Your task to perform on an android device: check the backup settings in the google photos Image 0: 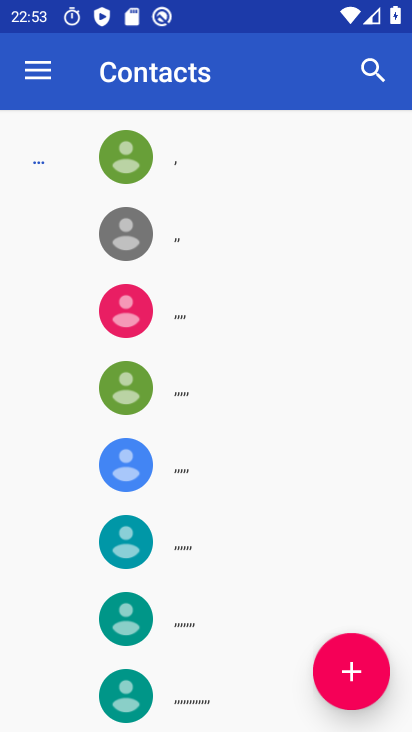
Step 0: press home button
Your task to perform on an android device: check the backup settings in the google photos Image 1: 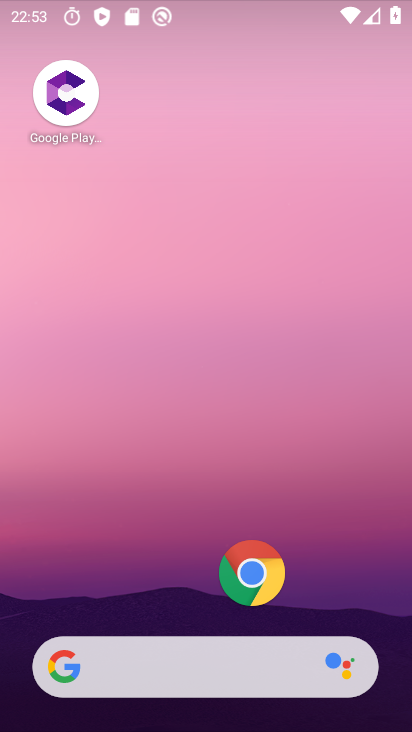
Step 1: drag from (187, 599) to (141, 49)
Your task to perform on an android device: check the backup settings in the google photos Image 2: 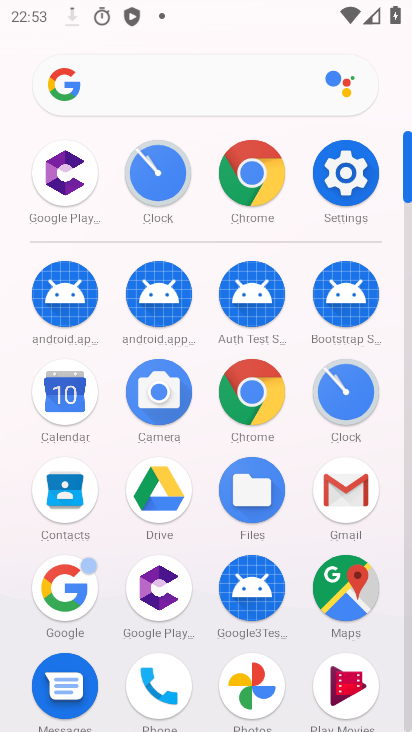
Step 2: click (235, 683)
Your task to perform on an android device: check the backup settings in the google photos Image 3: 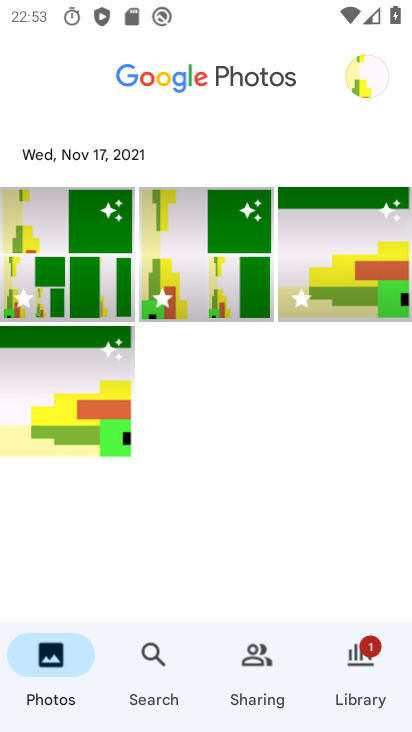
Step 3: click (366, 75)
Your task to perform on an android device: check the backup settings in the google photos Image 4: 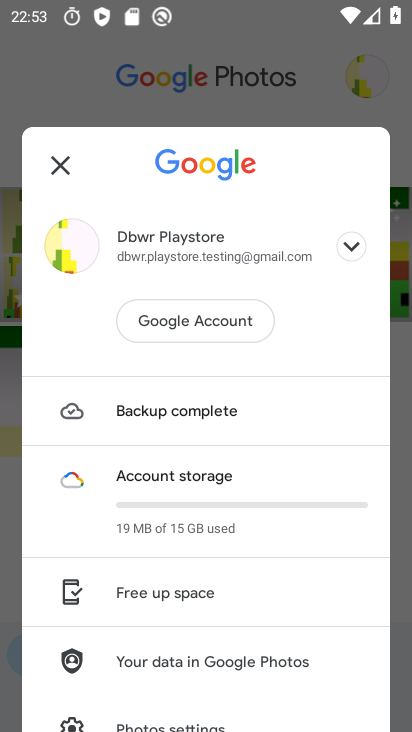
Step 4: drag from (249, 585) to (252, 259)
Your task to perform on an android device: check the backup settings in the google photos Image 5: 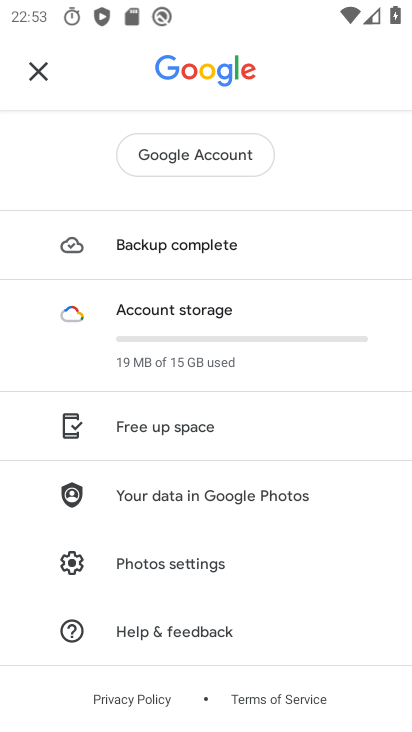
Step 5: click (162, 567)
Your task to perform on an android device: check the backup settings in the google photos Image 6: 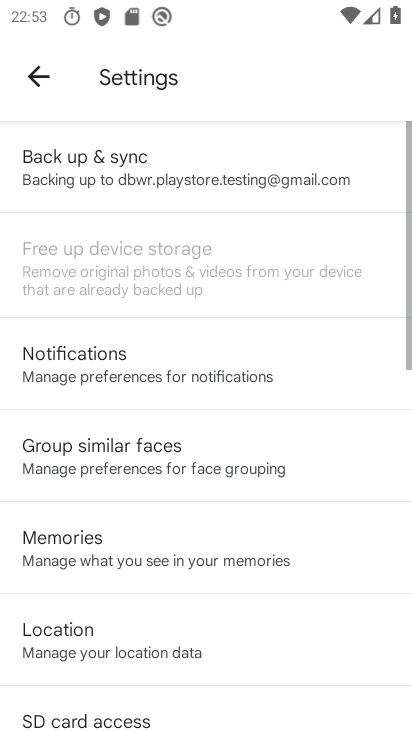
Step 6: click (126, 164)
Your task to perform on an android device: check the backup settings in the google photos Image 7: 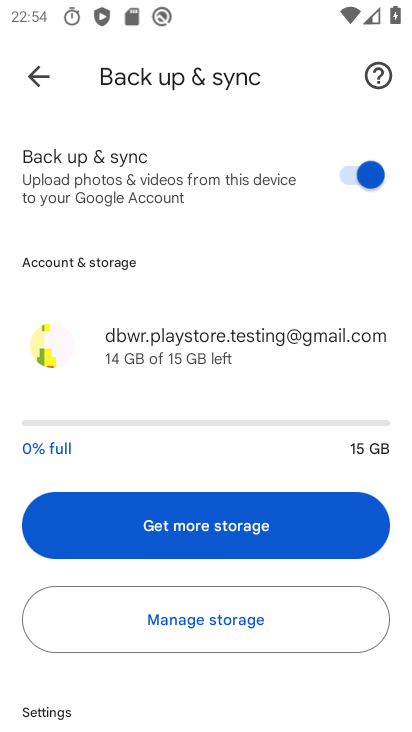
Step 7: task complete